Your task to perform on an android device: toggle notification dots Image 0: 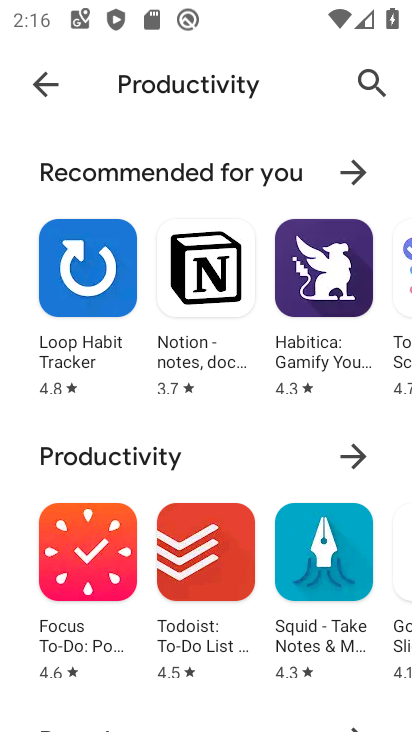
Step 0: press home button
Your task to perform on an android device: toggle notification dots Image 1: 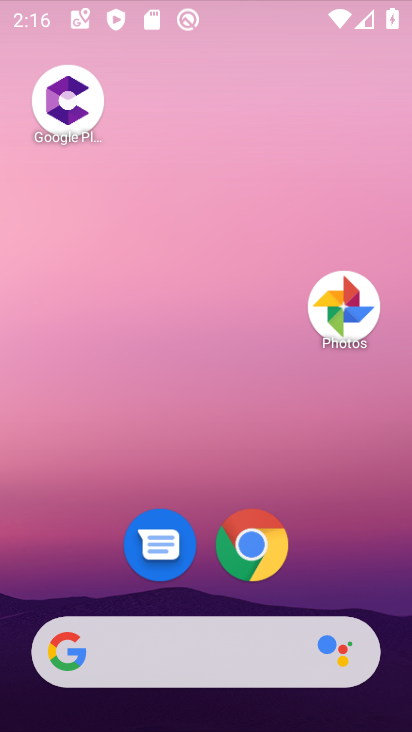
Step 1: drag from (342, 543) to (346, 25)
Your task to perform on an android device: toggle notification dots Image 2: 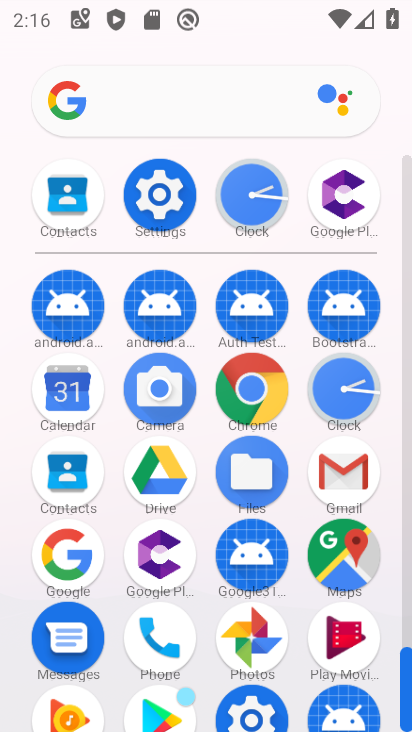
Step 2: click (164, 170)
Your task to perform on an android device: toggle notification dots Image 3: 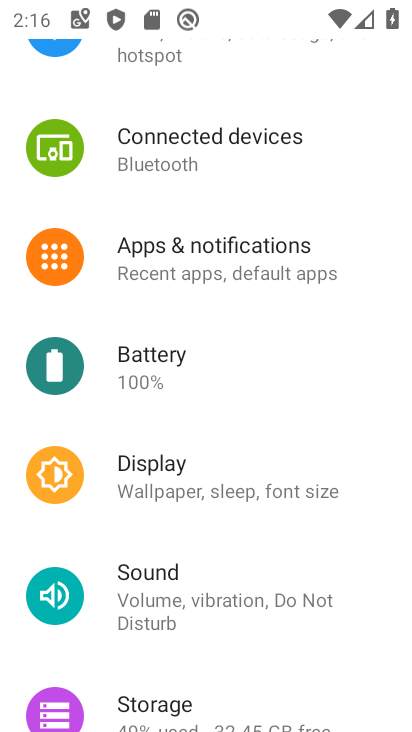
Step 3: click (195, 273)
Your task to perform on an android device: toggle notification dots Image 4: 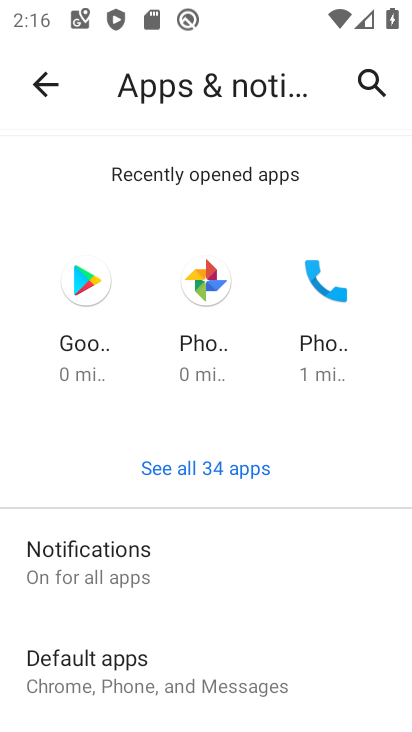
Step 4: click (229, 556)
Your task to perform on an android device: toggle notification dots Image 5: 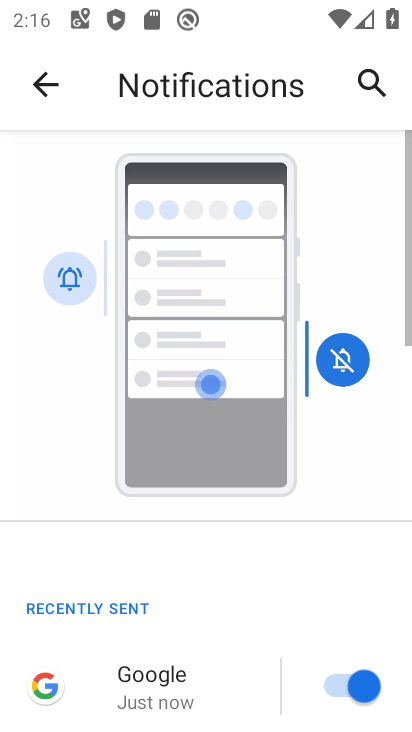
Step 5: drag from (229, 556) to (207, 8)
Your task to perform on an android device: toggle notification dots Image 6: 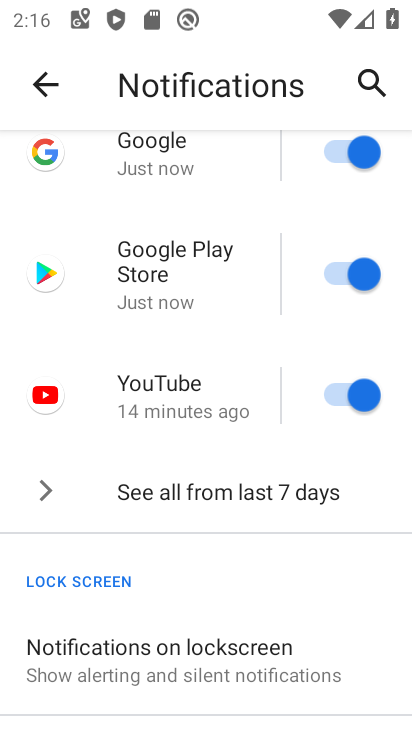
Step 6: drag from (280, 651) to (267, 240)
Your task to perform on an android device: toggle notification dots Image 7: 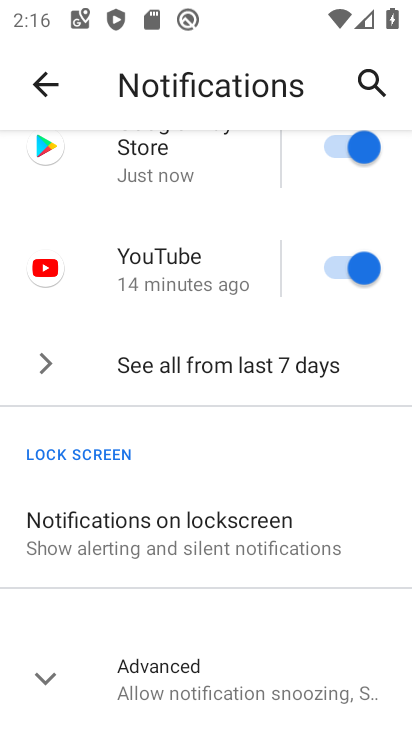
Step 7: click (210, 674)
Your task to perform on an android device: toggle notification dots Image 8: 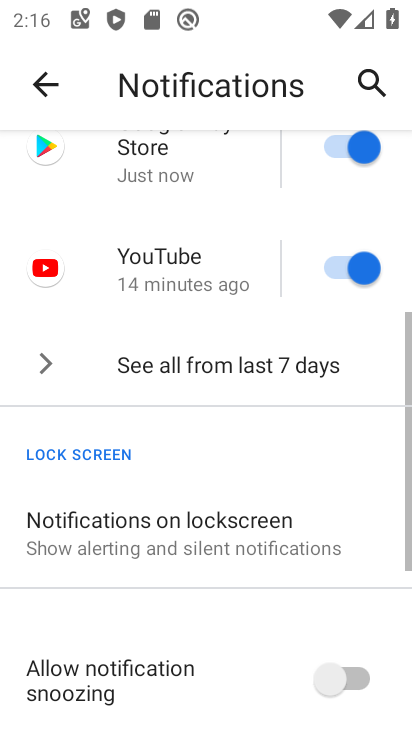
Step 8: drag from (210, 674) to (225, 243)
Your task to perform on an android device: toggle notification dots Image 9: 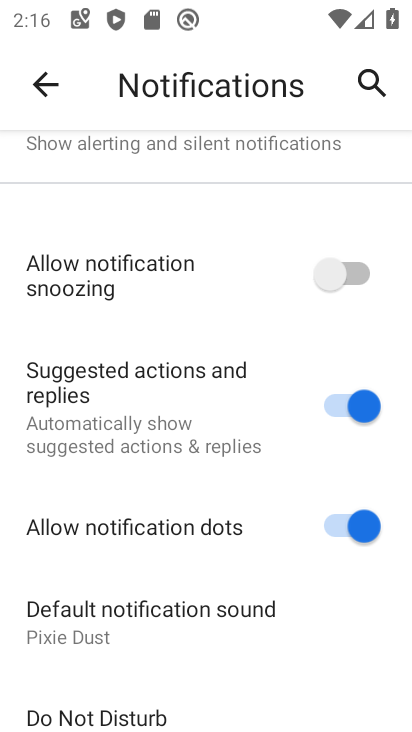
Step 9: click (358, 517)
Your task to perform on an android device: toggle notification dots Image 10: 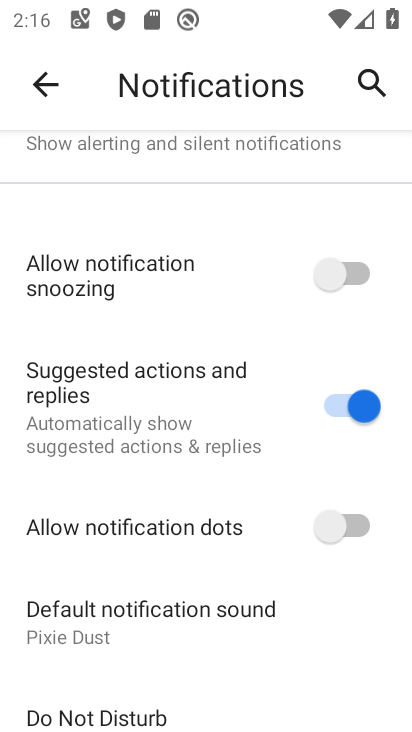
Step 10: task complete